Your task to perform on an android device: Show me recent news Image 0: 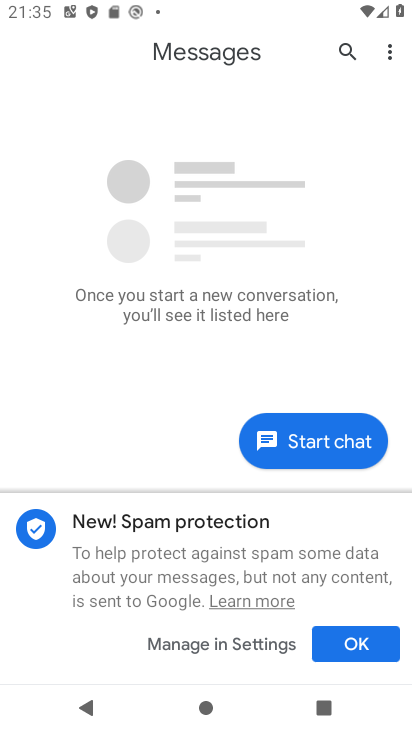
Step 0: press home button
Your task to perform on an android device: Show me recent news Image 1: 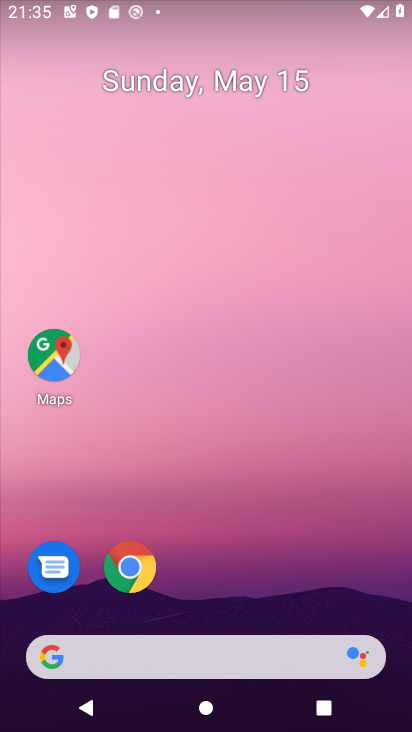
Step 1: task complete